Your task to perform on an android device: change notifications settings Image 0: 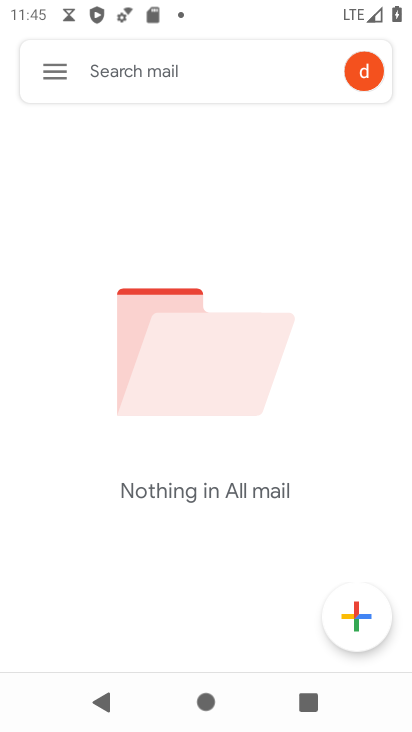
Step 0: press home button
Your task to perform on an android device: change notifications settings Image 1: 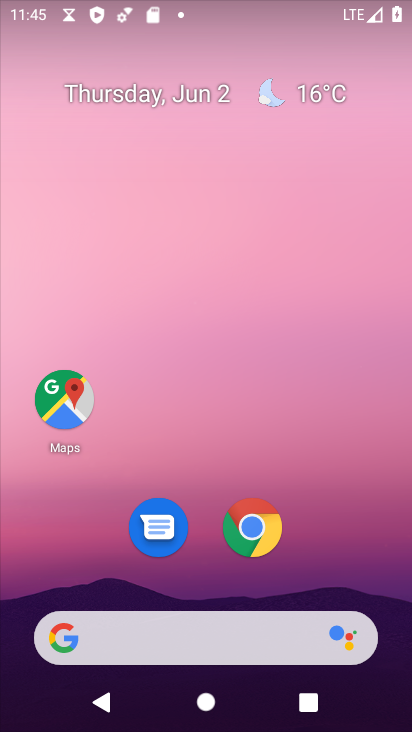
Step 1: drag from (203, 638) to (195, 162)
Your task to perform on an android device: change notifications settings Image 2: 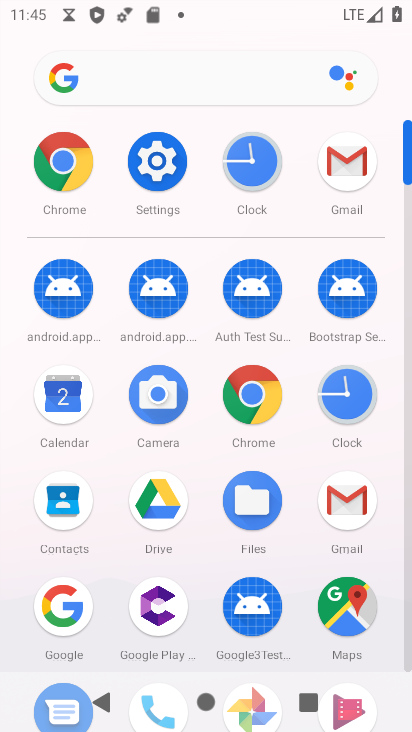
Step 2: click (142, 179)
Your task to perform on an android device: change notifications settings Image 3: 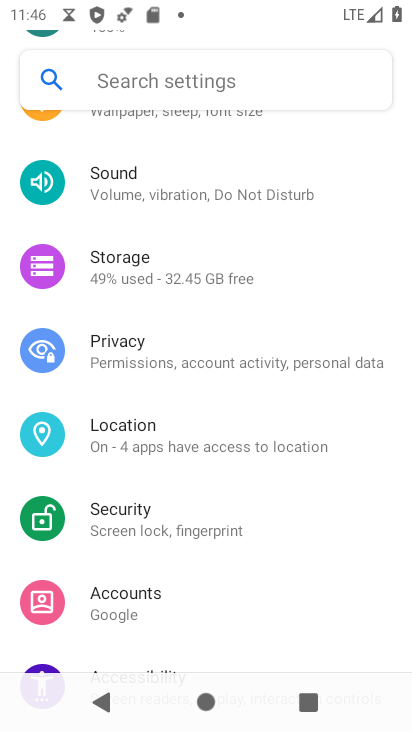
Step 3: click (138, 194)
Your task to perform on an android device: change notifications settings Image 4: 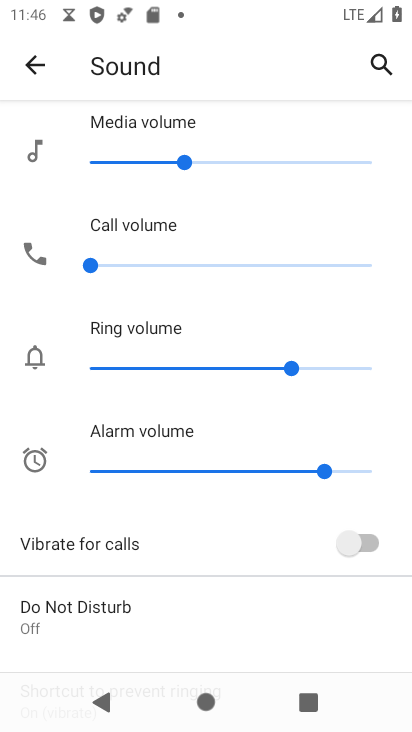
Step 4: click (353, 546)
Your task to perform on an android device: change notifications settings Image 5: 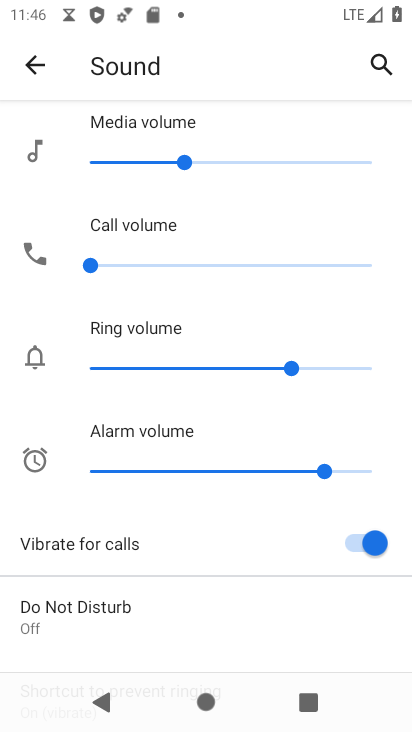
Step 5: task complete